Your task to perform on an android device: toggle sleep mode Image 0: 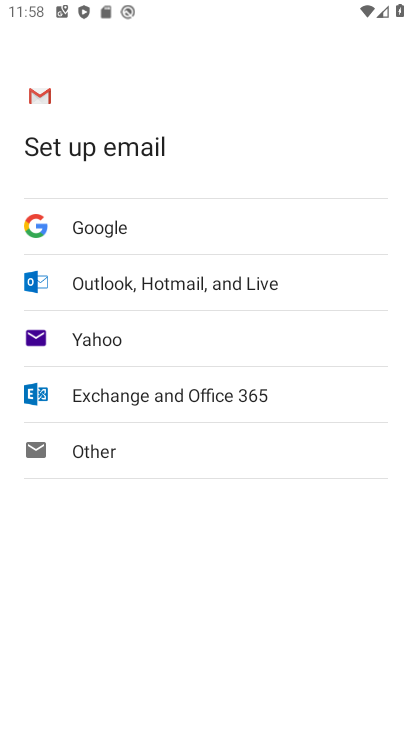
Step 0: press home button
Your task to perform on an android device: toggle sleep mode Image 1: 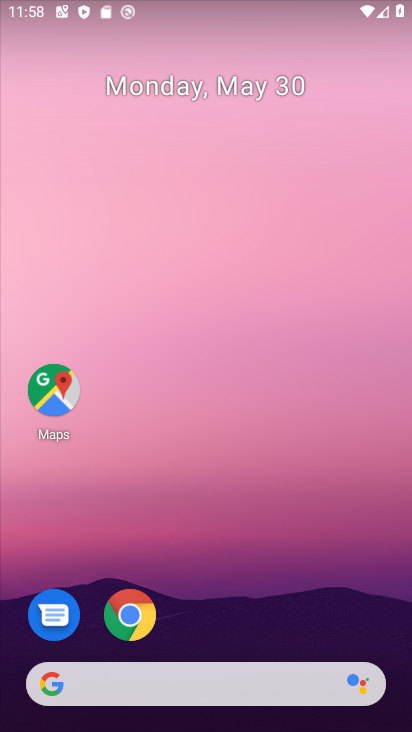
Step 1: drag from (200, 654) to (254, 301)
Your task to perform on an android device: toggle sleep mode Image 2: 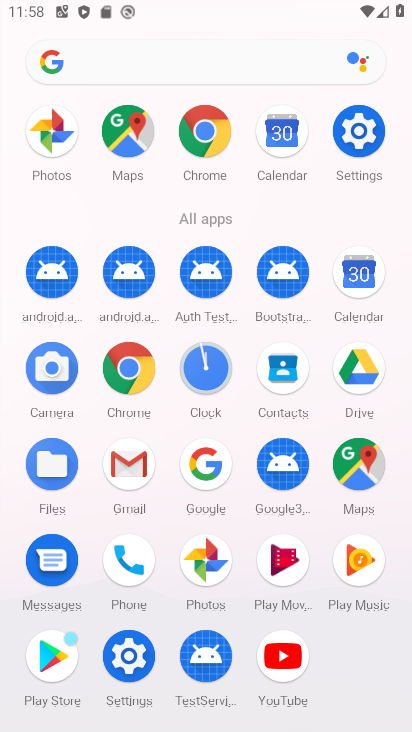
Step 2: click (138, 674)
Your task to perform on an android device: toggle sleep mode Image 3: 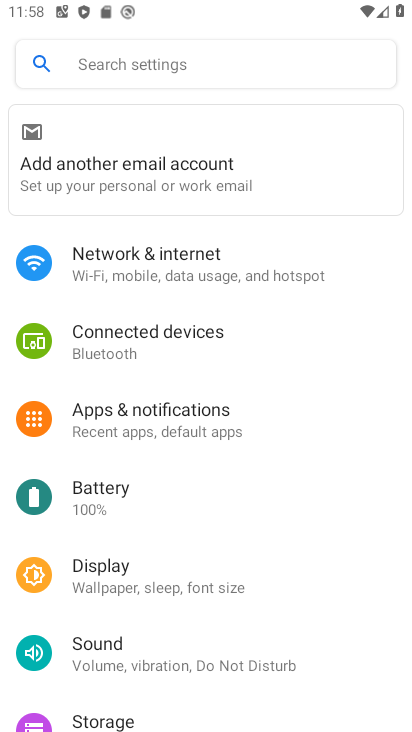
Step 3: click (191, 66)
Your task to perform on an android device: toggle sleep mode Image 4: 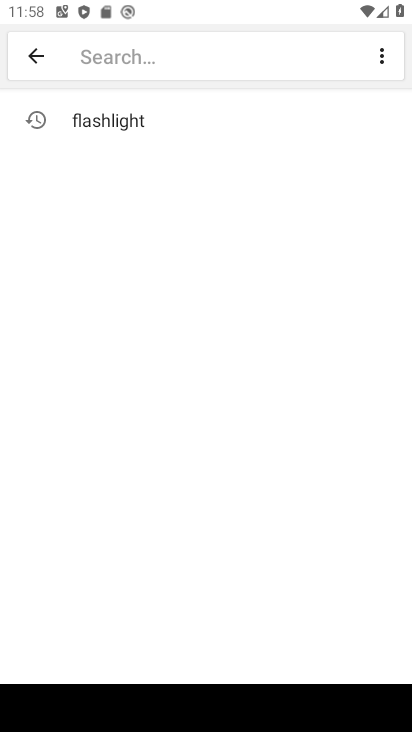
Step 4: type "sleep mode"
Your task to perform on an android device: toggle sleep mode Image 5: 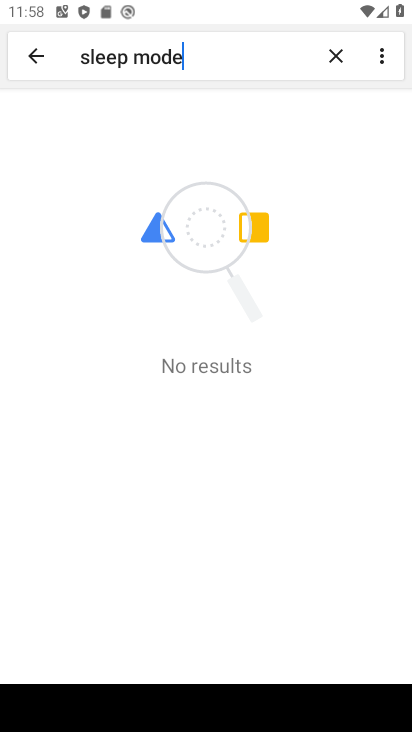
Step 5: task complete